Your task to perform on an android device: toggle show notifications on the lock screen Image 0: 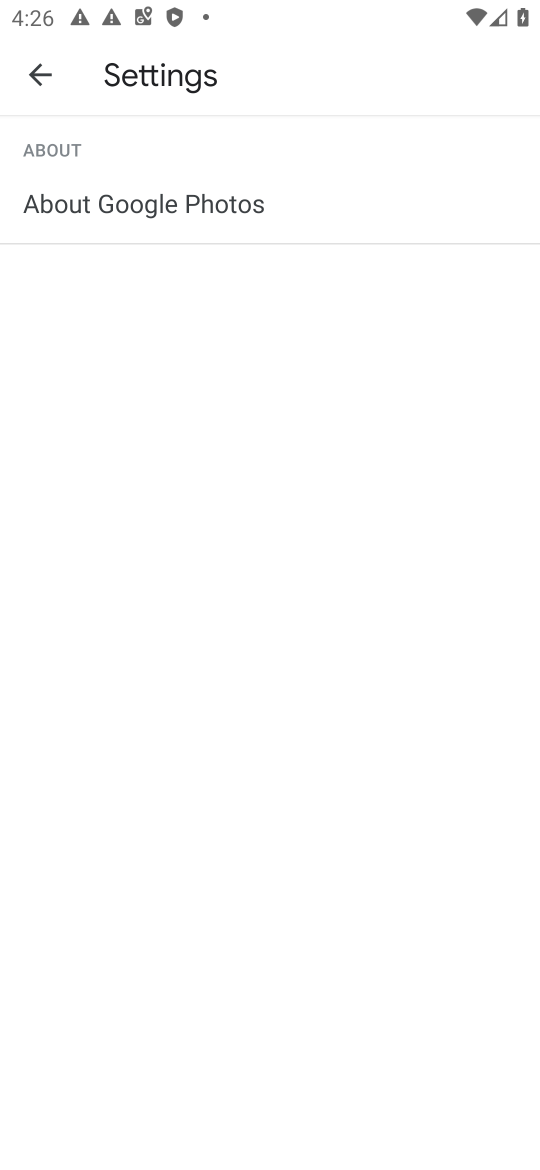
Step 0: press home button
Your task to perform on an android device: toggle show notifications on the lock screen Image 1: 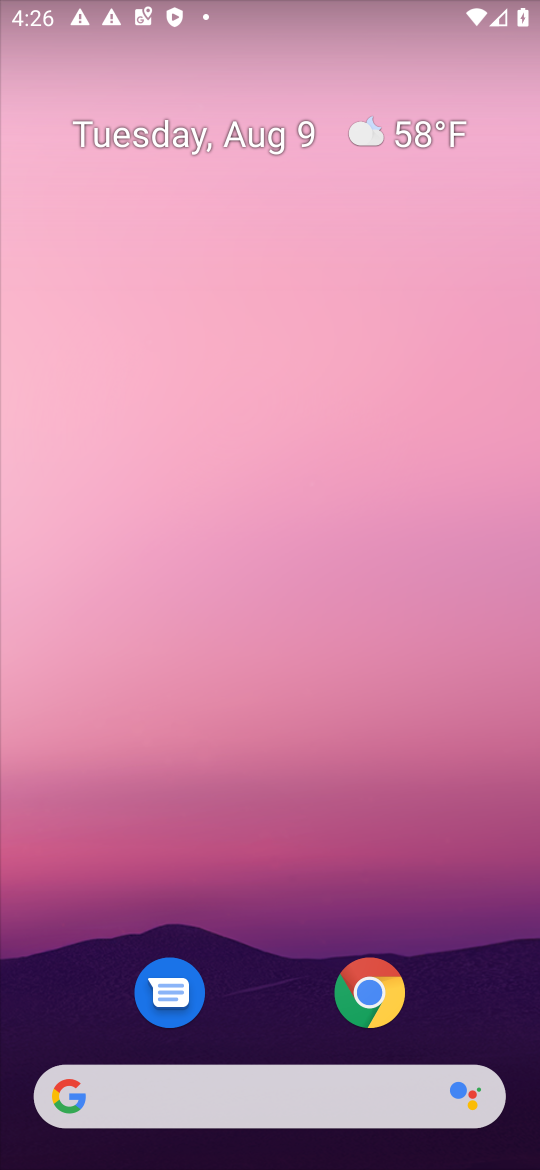
Step 1: drag from (165, 1076) to (235, 291)
Your task to perform on an android device: toggle show notifications on the lock screen Image 2: 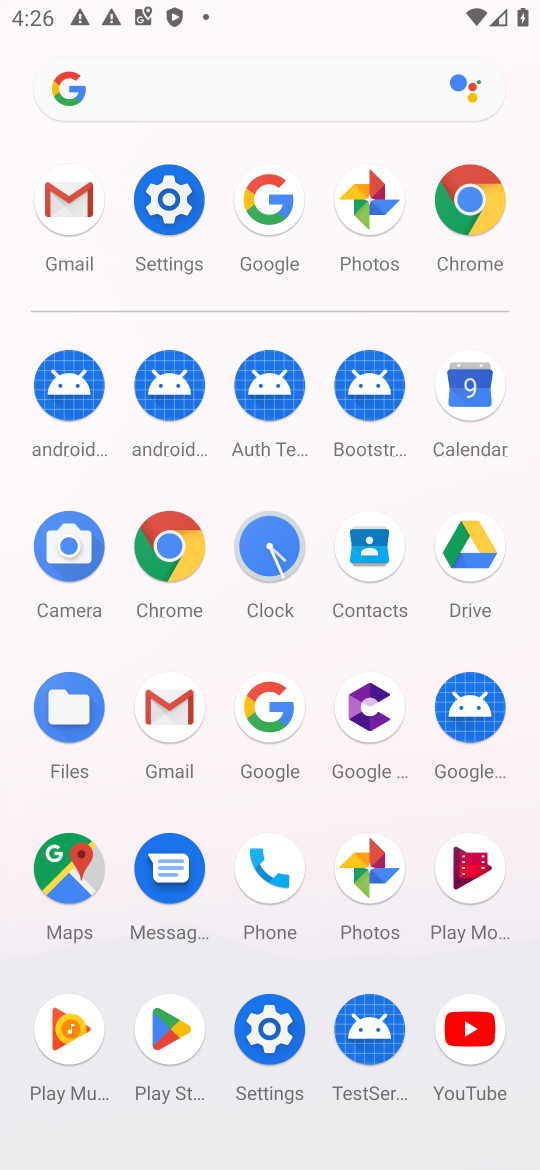
Step 2: click (185, 204)
Your task to perform on an android device: toggle show notifications on the lock screen Image 3: 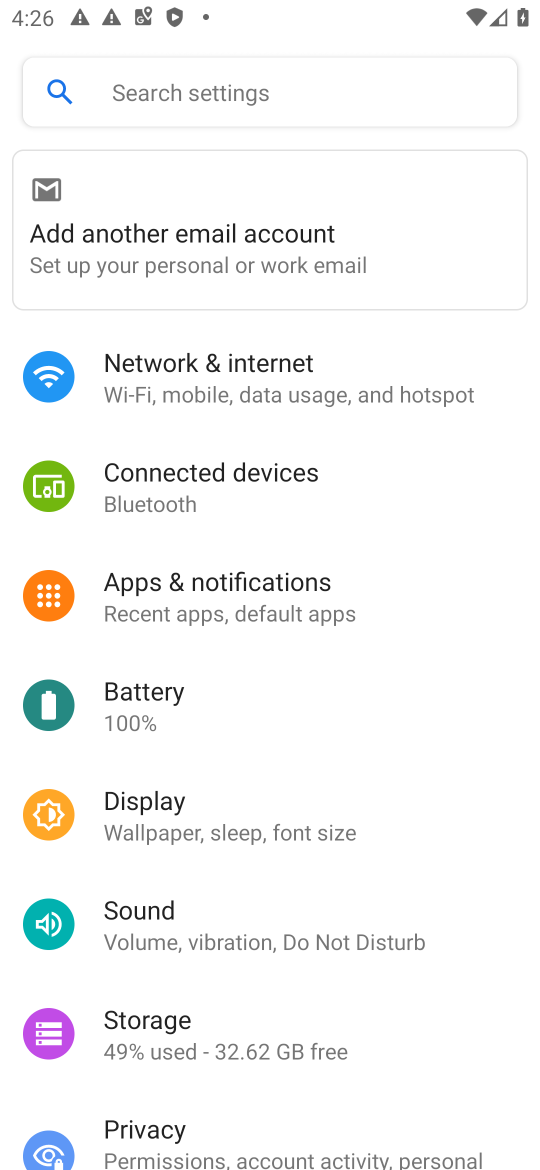
Step 3: click (183, 566)
Your task to perform on an android device: toggle show notifications on the lock screen Image 4: 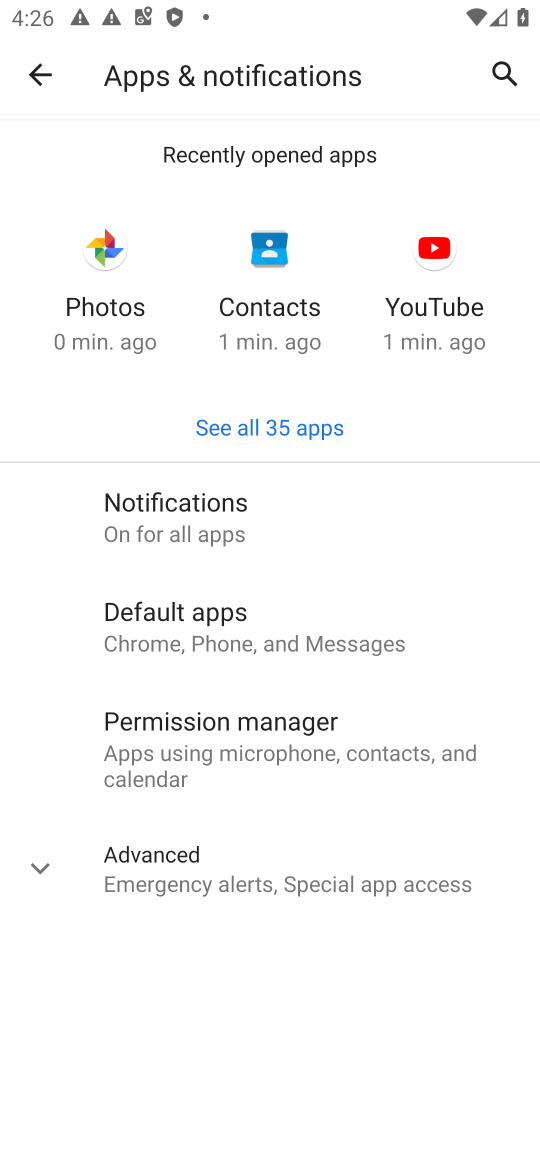
Step 4: click (277, 793)
Your task to perform on an android device: toggle show notifications on the lock screen Image 5: 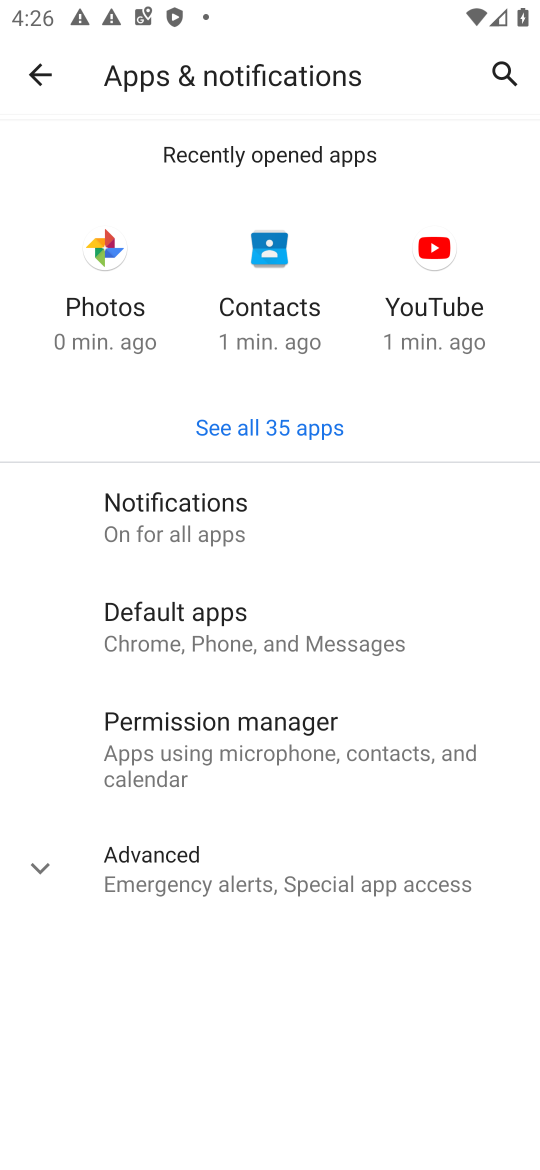
Step 5: click (277, 793)
Your task to perform on an android device: toggle show notifications on the lock screen Image 6: 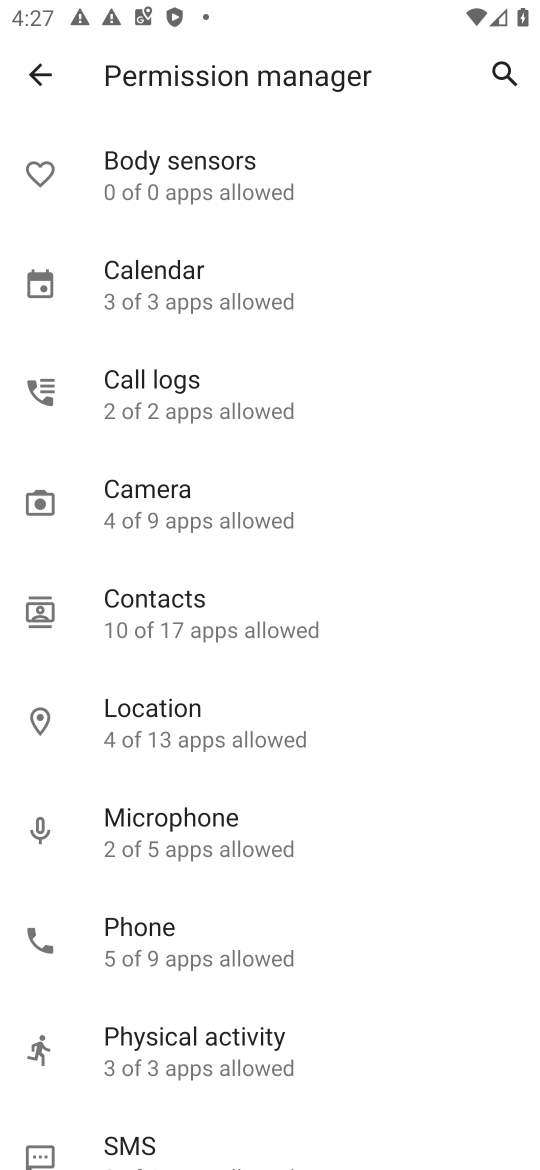
Step 6: type ""
Your task to perform on an android device: toggle show notifications on the lock screen Image 7: 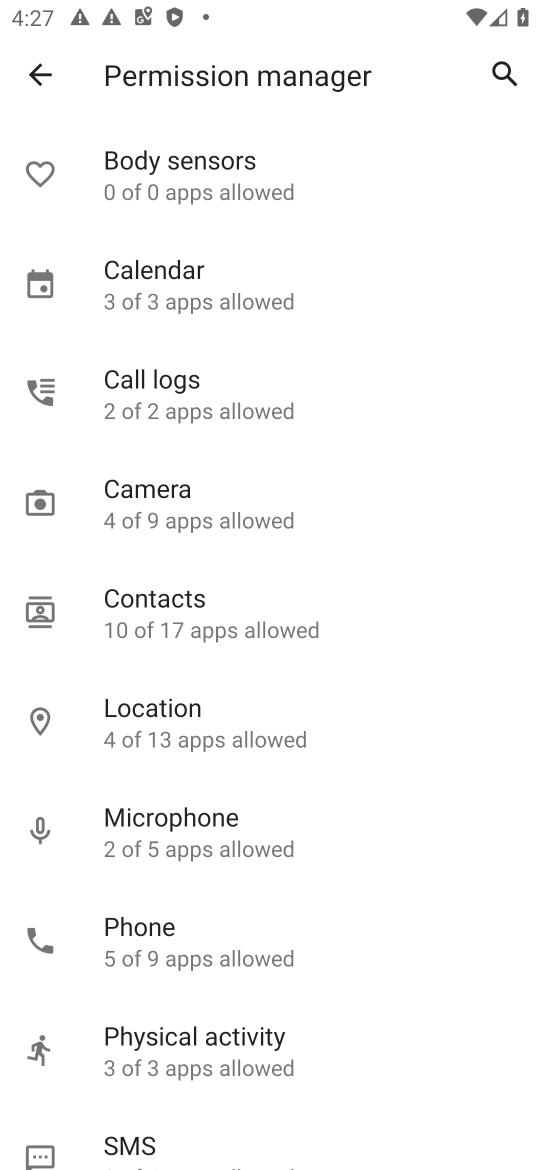
Step 7: press back button
Your task to perform on an android device: toggle show notifications on the lock screen Image 8: 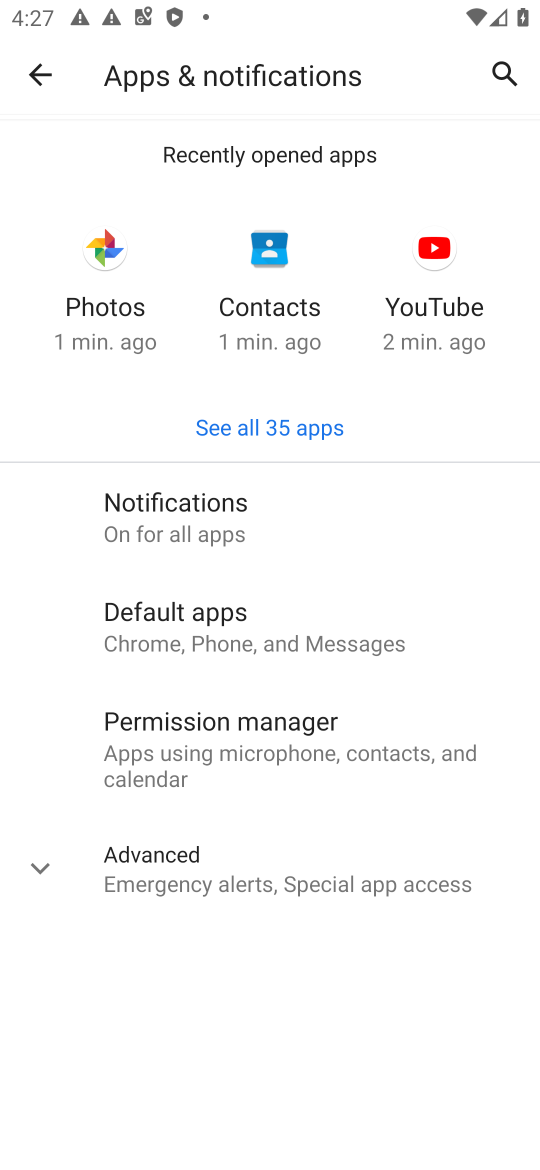
Step 8: click (128, 508)
Your task to perform on an android device: toggle show notifications on the lock screen Image 9: 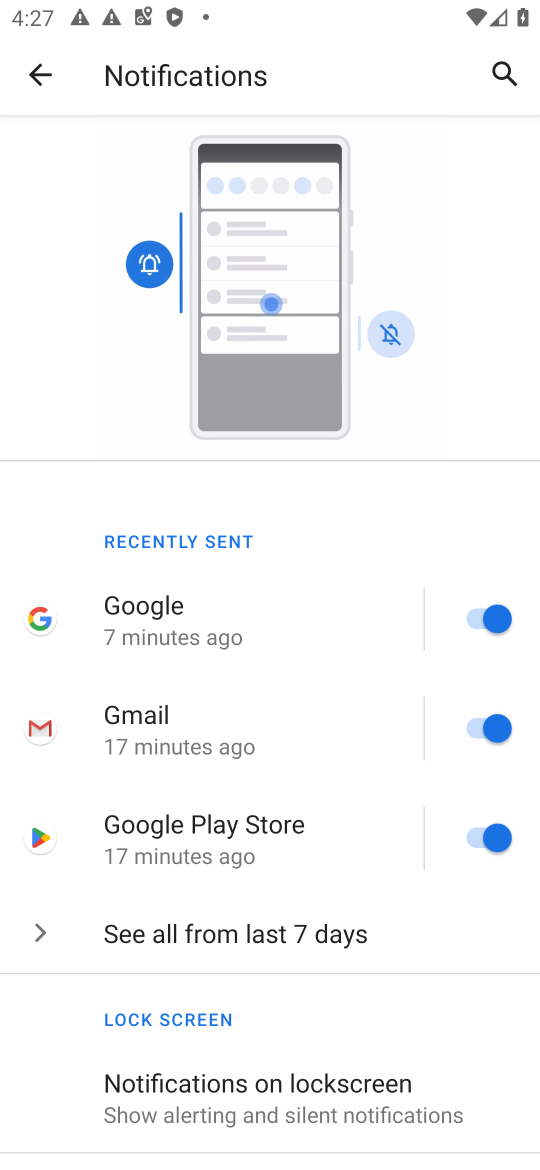
Step 9: click (357, 1064)
Your task to perform on an android device: toggle show notifications on the lock screen Image 10: 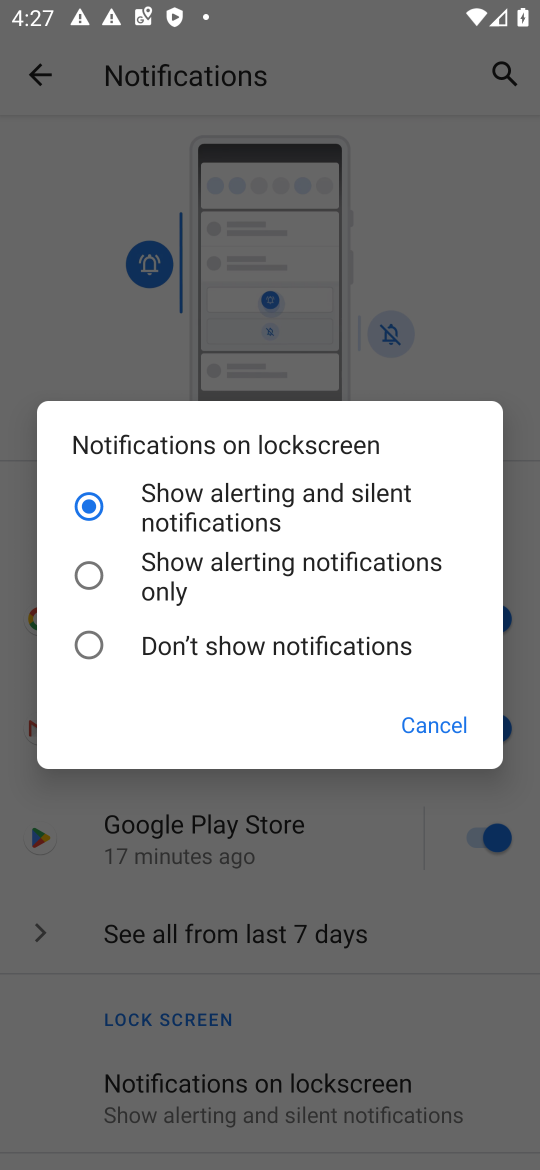
Step 10: click (84, 650)
Your task to perform on an android device: toggle show notifications on the lock screen Image 11: 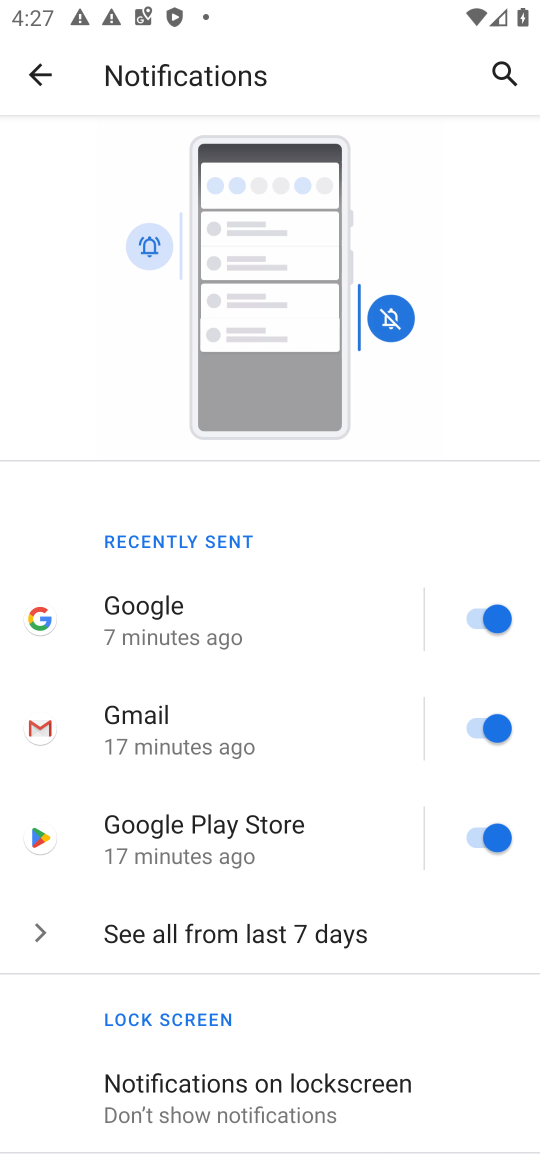
Step 11: task complete